Your task to perform on an android device: read, delete, or share a saved page in the chrome app Image 0: 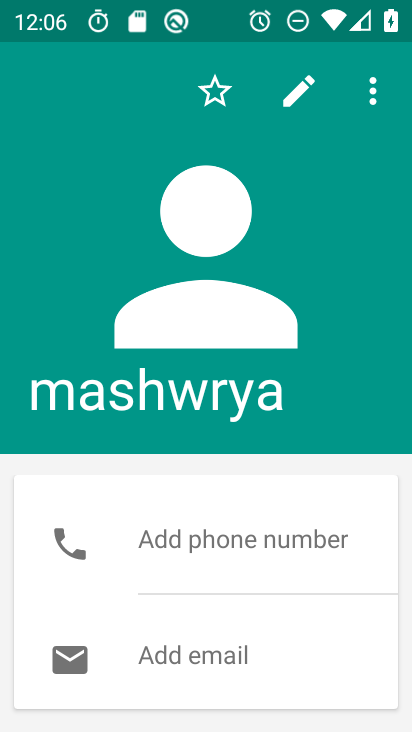
Step 0: press home button
Your task to perform on an android device: read, delete, or share a saved page in the chrome app Image 1: 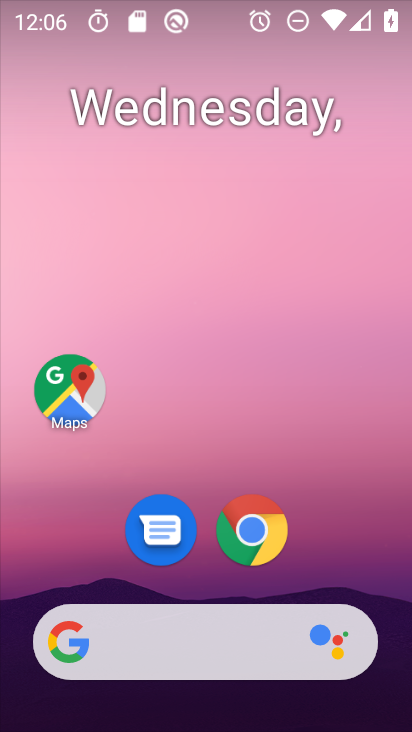
Step 1: click (251, 525)
Your task to perform on an android device: read, delete, or share a saved page in the chrome app Image 2: 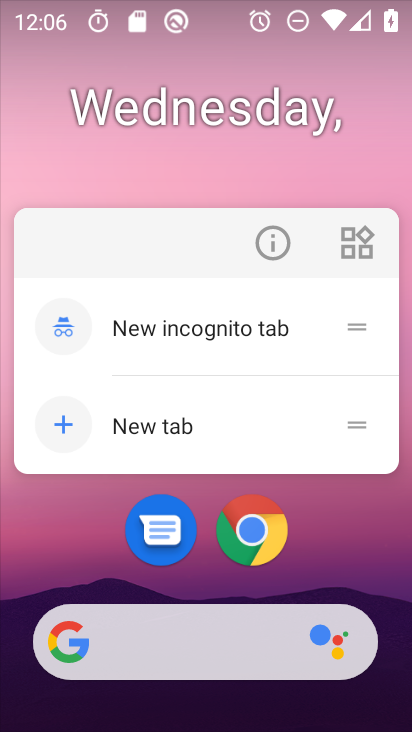
Step 2: click (258, 536)
Your task to perform on an android device: read, delete, or share a saved page in the chrome app Image 3: 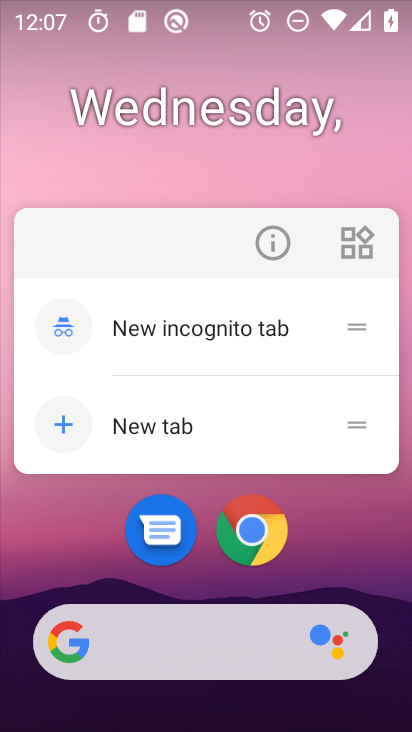
Step 3: click (257, 535)
Your task to perform on an android device: read, delete, or share a saved page in the chrome app Image 4: 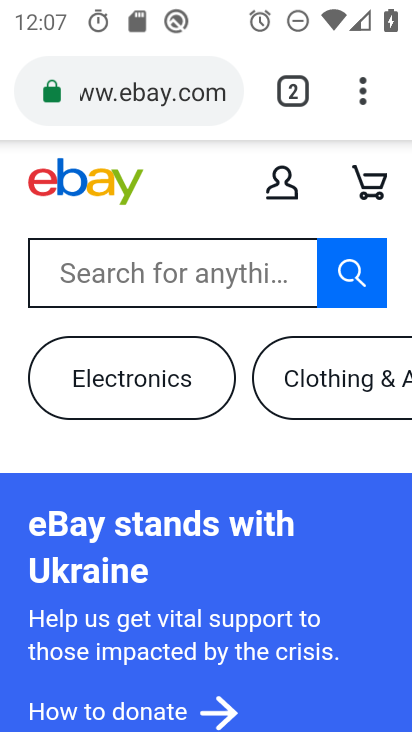
Step 4: task complete